Your task to perform on an android device: Open Google Maps and go to "Timeline" Image 0: 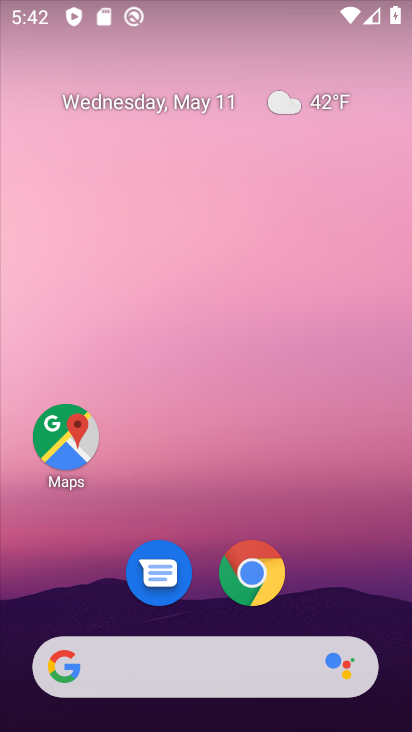
Step 0: click (64, 428)
Your task to perform on an android device: Open Google Maps and go to "Timeline" Image 1: 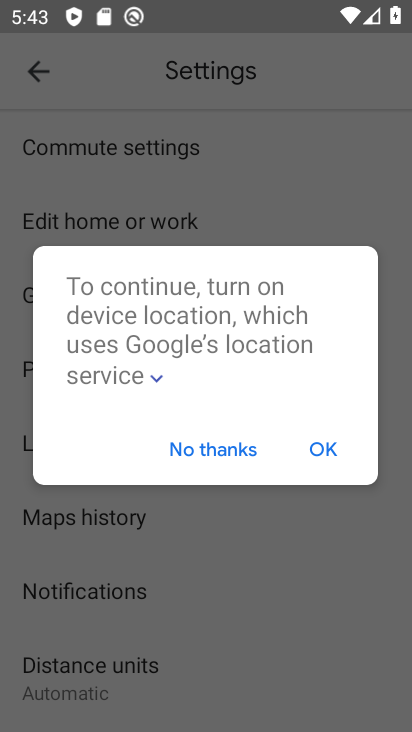
Step 1: click (317, 446)
Your task to perform on an android device: Open Google Maps and go to "Timeline" Image 2: 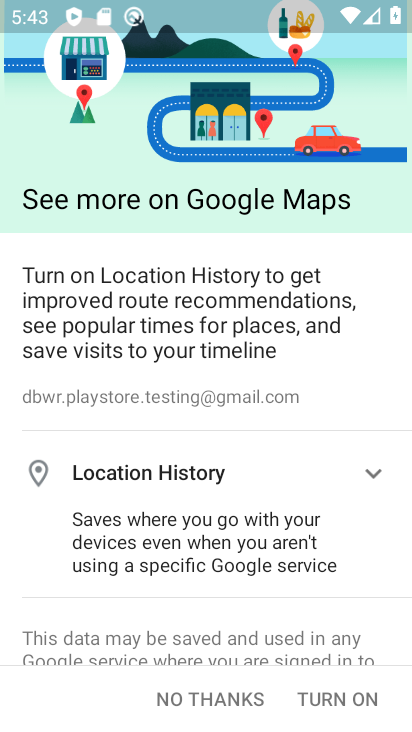
Step 2: click (195, 691)
Your task to perform on an android device: Open Google Maps and go to "Timeline" Image 3: 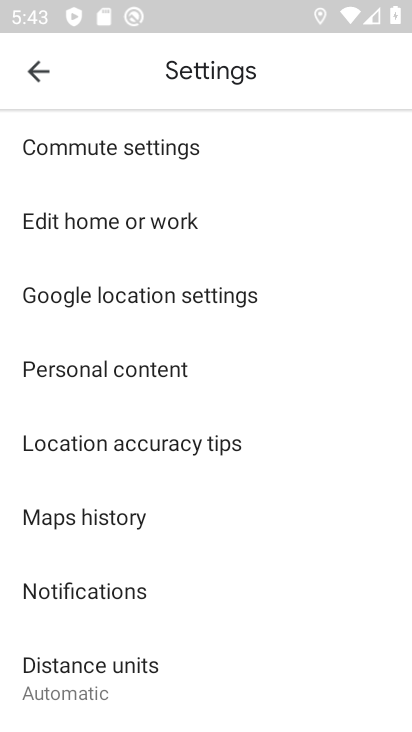
Step 3: click (37, 83)
Your task to perform on an android device: Open Google Maps and go to "Timeline" Image 4: 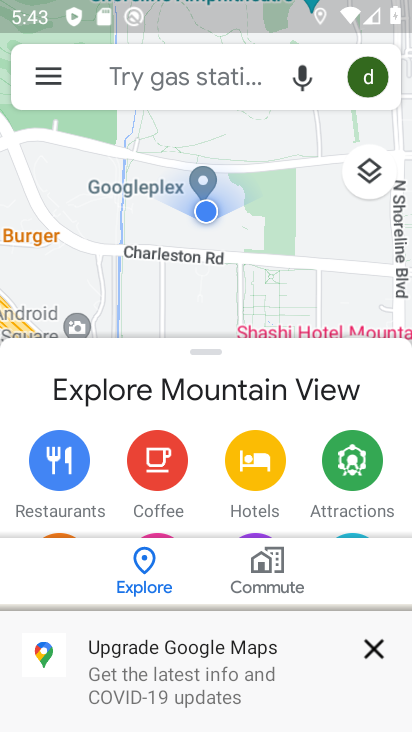
Step 4: click (37, 79)
Your task to perform on an android device: Open Google Maps and go to "Timeline" Image 5: 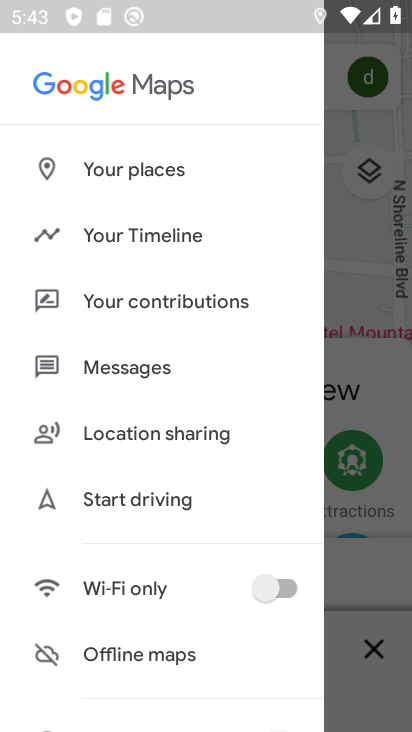
Step 5: click (177, 232)
Your task to perform on an android device: Open Google Maps and go to "Timeline" Image 6: 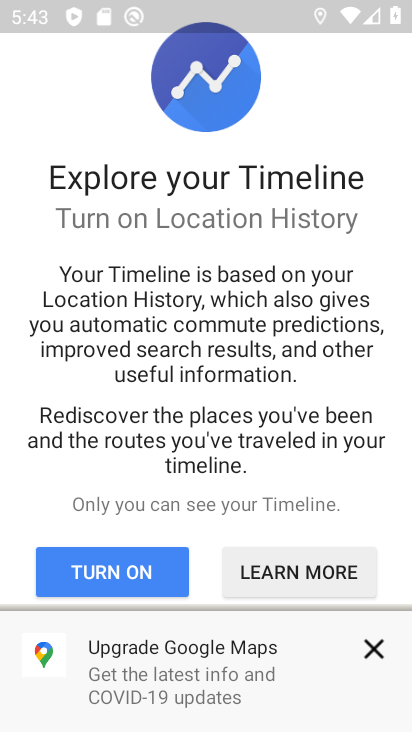
Step 6: click (131, 577)
Your task to perform on an android device: Open Google Maps and go to "Timeline" Image 7: 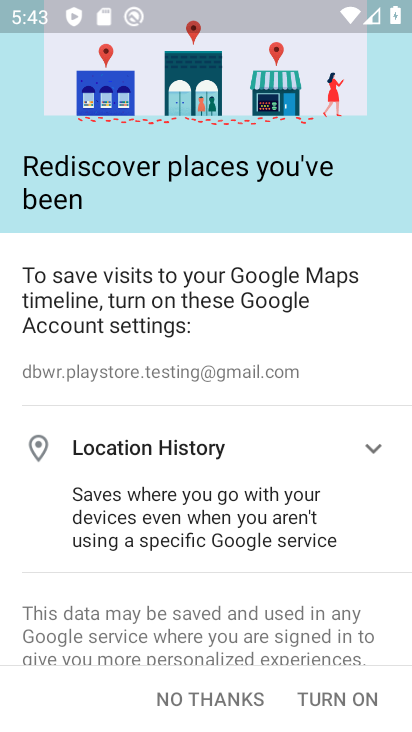
Step 7: task complete